Your task to perform on an android device: open wifi settings Image 0: 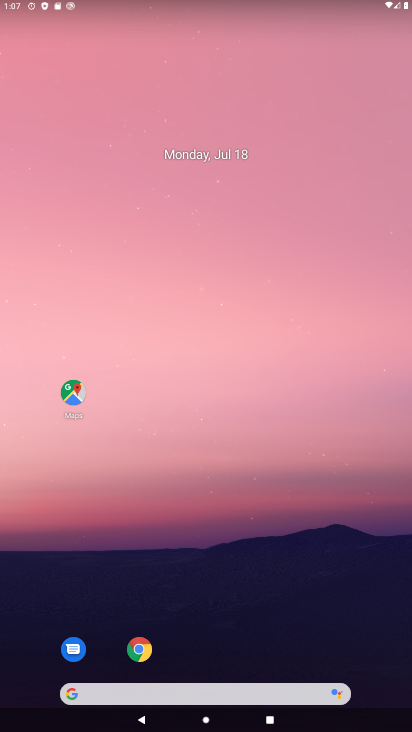
Step 0: drag from (200, 673) to (212, 0)
Your task to perform on an android device: open wifi settings Image 1: 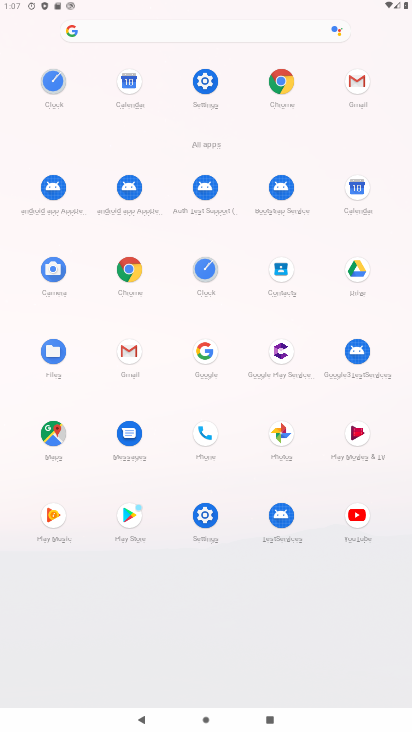
Step 1: click (212, 524)
Your task to perform on an android device: open wifi settings Image 2: 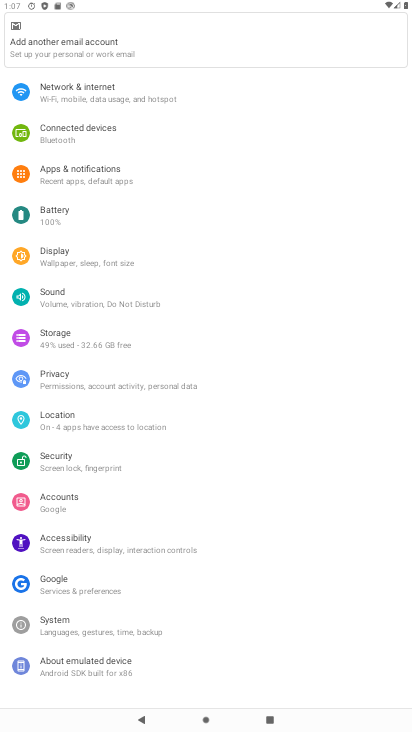
Step 2: click (101, 79)
Your task to perform on an android device: open wifi settings Image 3: 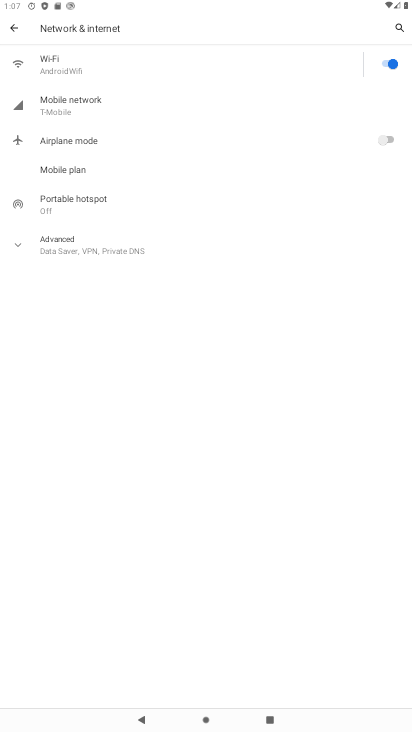
Step 3: click (60, 74)
Your task to perform on an android device: open wifi settings Image 4: 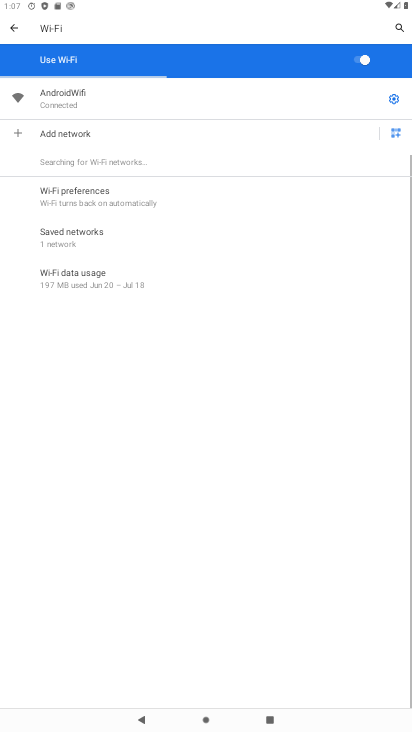
Step 4: task complete